Your task to perform on an android device: remove spam from my inbox in the gmail app Image 0: 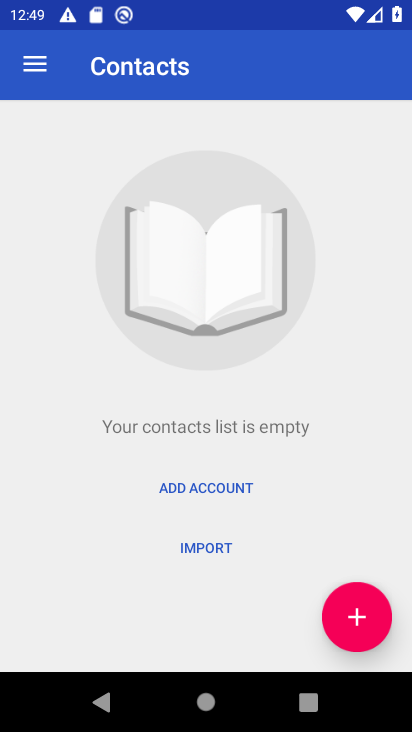
Step 0: press home button
Your task to perform on an android device: remove spam from my inbox in the gmail app Image 1: 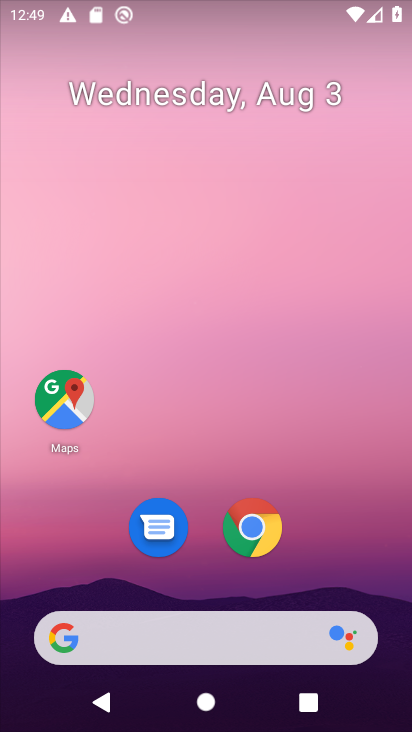
Step 1: drag from (105, 543) to (264, 12)
Your task to perform on an android device: remove spam from my inbox in the gmail app Image 2: 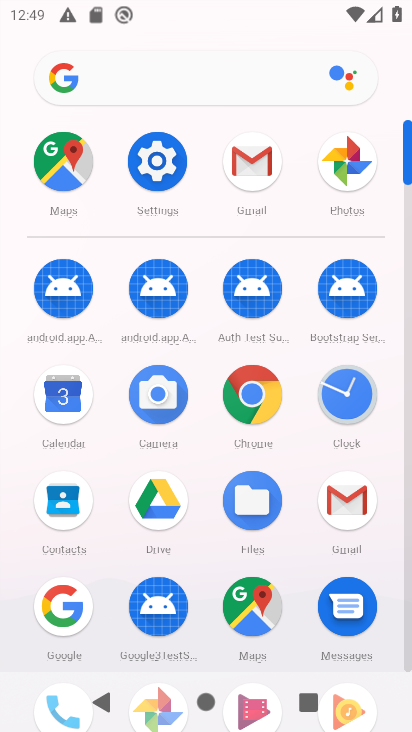
Step 2: click (347, 504)
Your task to perform on an android device: remove spam from my inbox in the gmail app Image 3: 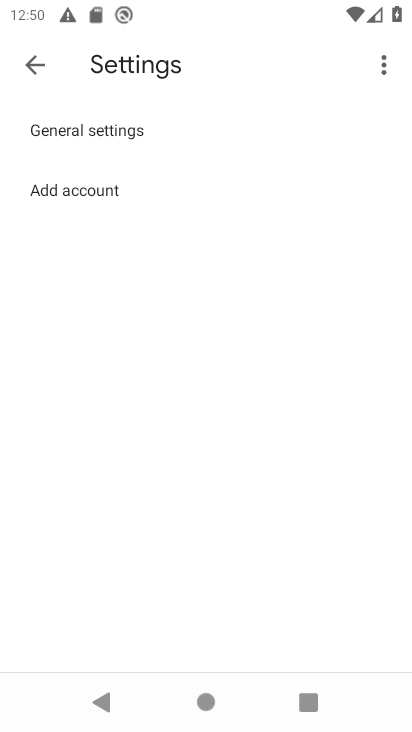
Step 3: press home button
Your task to perform on an android device: remove spam from my inbox in the gmail app Image 4: 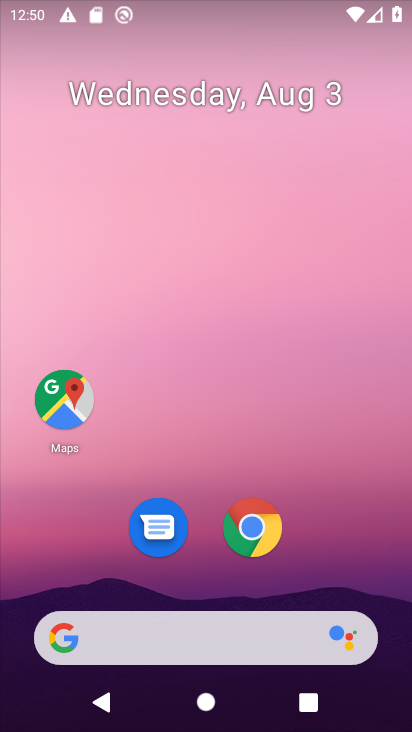
Step 4: drag from (52, 691) to (213, 203)
Your task to perform on an android device: remove spam from my inbox in the gmail app Image 5: 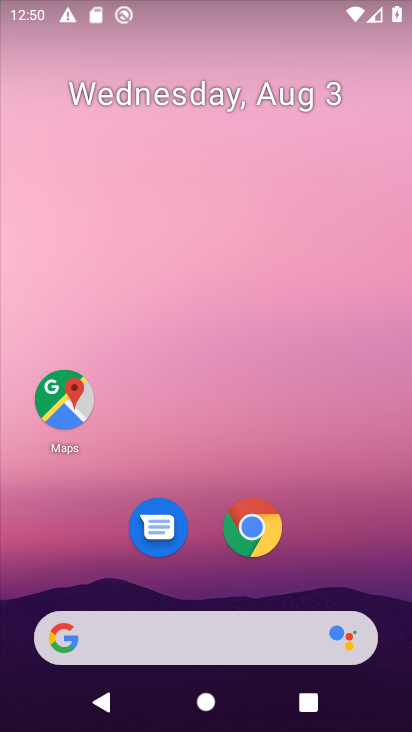
Step 5: drag from (51, 705) to (302, 56)
Your task to perform on an android device: remove spam from my inbox in the gmail app Image 6: 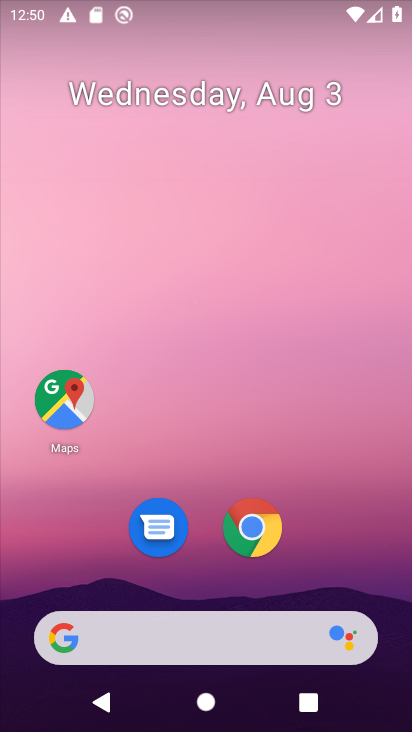
Step 6: drag from (39, 695) to (203, 53)
Your task to perform on an android device: remove spam from my inbox in the gmail app Image 7: 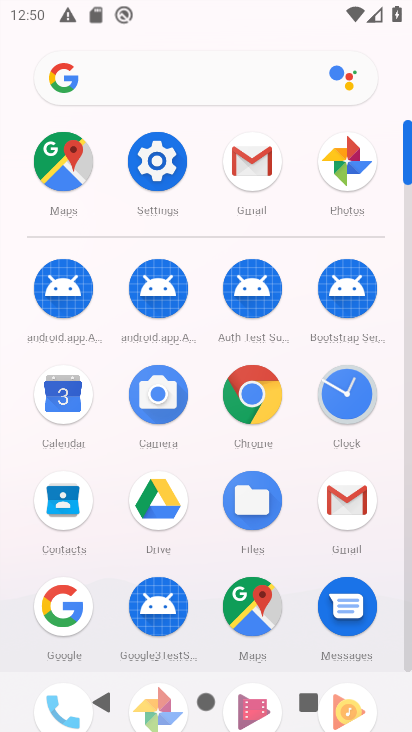
Step 7: click (364, 490)
Your task to perform on an android device: remove spam from my inbox in the gmail app Image 8: 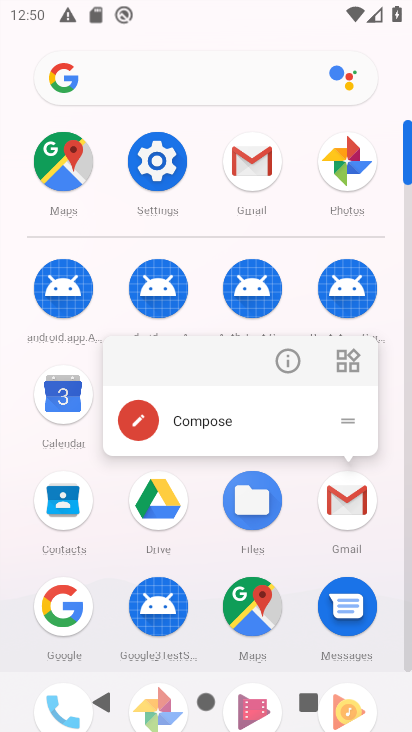
Step 8: click (371, 505)
Your task to perform on an android device: remove spam from my inbox in the gmail app Image 9: 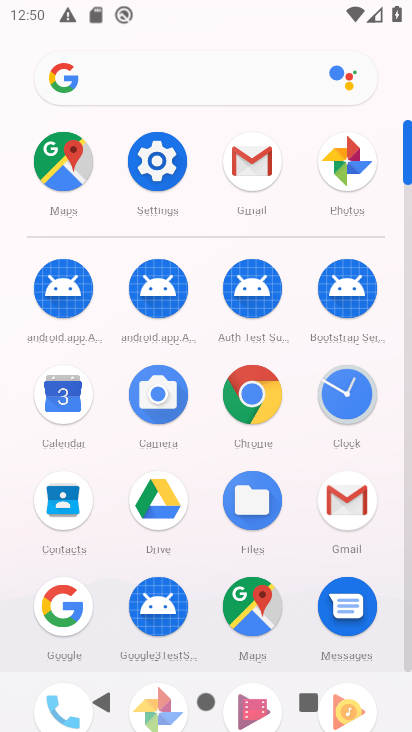
Step 9: click (335, 492)
Your task to perform on an android device: remove spam from my inbox in the gmail app Image 10: 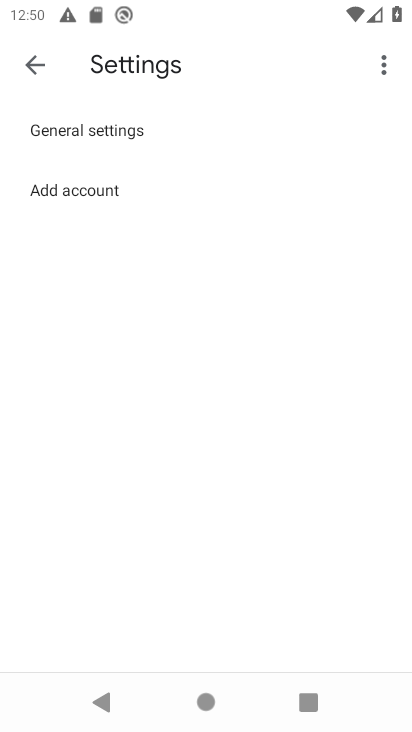
Step 10: click (36, 63)
Your task to perform on an android device: remove spam from my inbox in the gmail app Image 11: 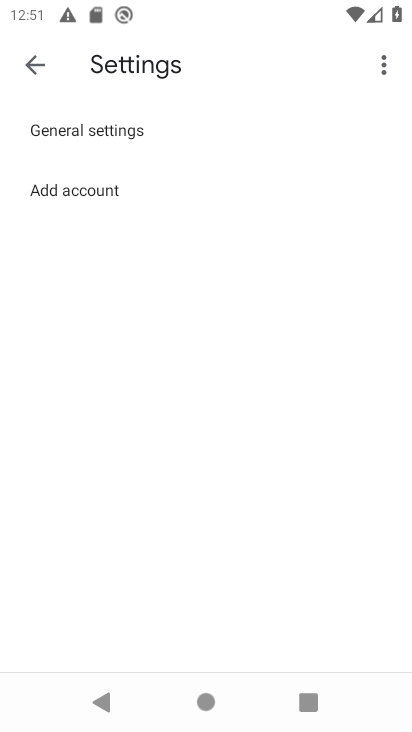
Step 11: click (32, 64)
Your task to perform on an android device: remove spam from my inbox in the gmail app Image 12: 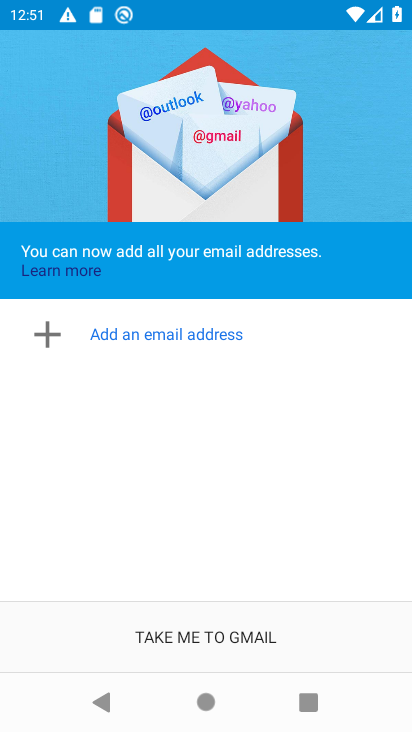
Step 12: task complete